Your task to perform on an android device: Open the stopwatch Image 0: 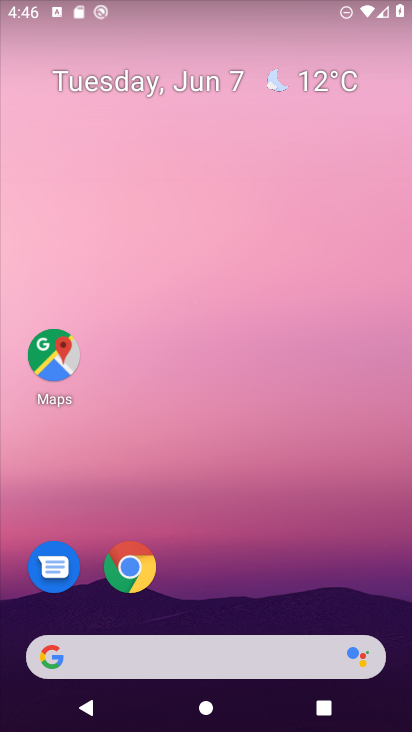
Step 0: drag from (159, 647) to (255, 68)
Your task to perform on an android device: Open the stopwatch Image 1: 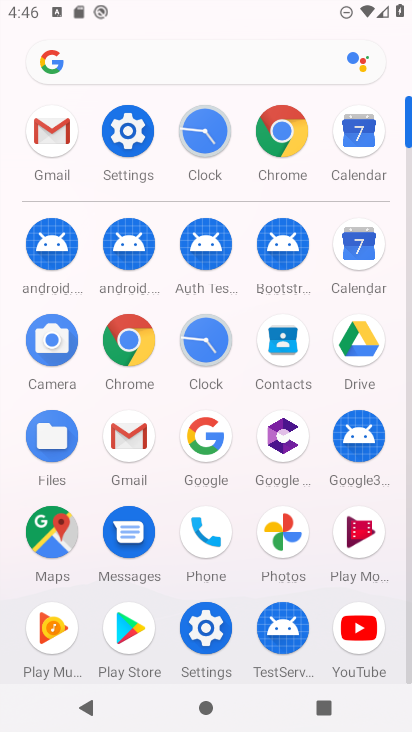
Step 1: click (201, 343)
Your task to perform on an android device: Open the stopwatch Image 2: 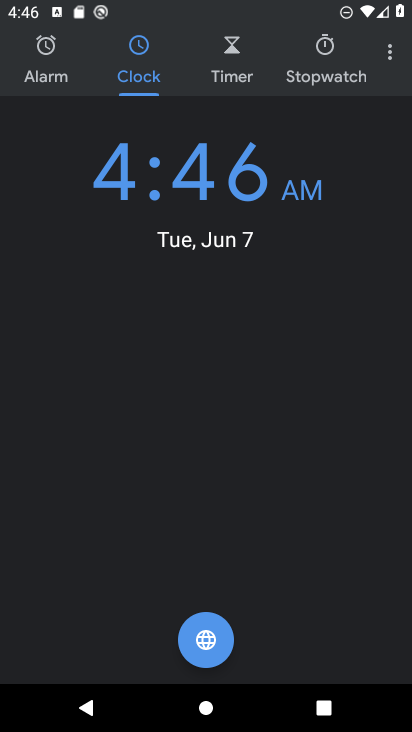
Step 2: click (347, 68)
Your task to perform on an android device: Open the stopwatch Image 3: 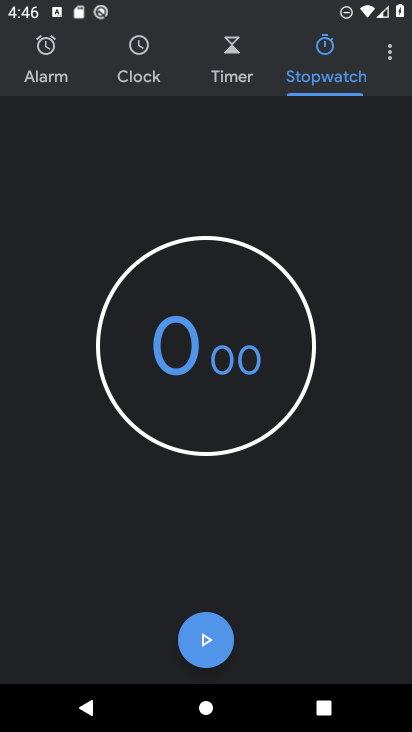
Step 3: task complete